Your task to perform on an android device: Play the last video I watched on Youtube Image 0: 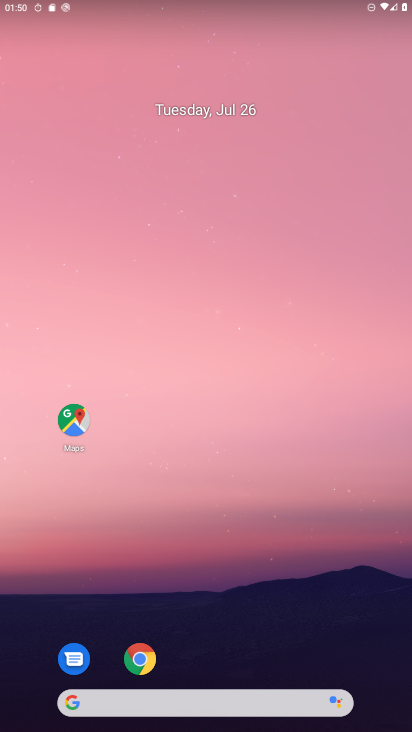
Step 0: press home button
Your task to perform on an android device: Play the last video I watched on Youtube Image 1: 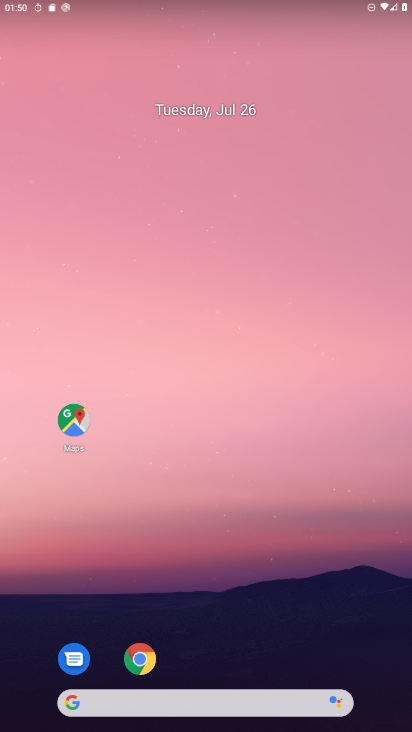
Step 1: drag from (115, 580) to (341, 17)
Your task to perform on an android device: Play the last video I watched on Youtube Image 2: 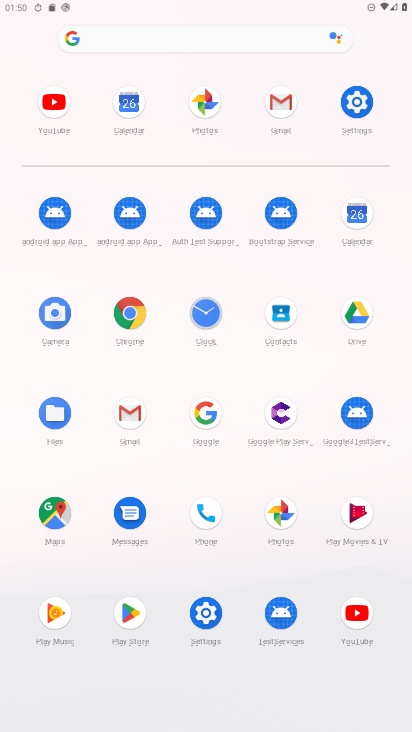
Step 2: click (356, 607)
Your task to perform on an android device: Play the last video I watched on Youtube Image 3: 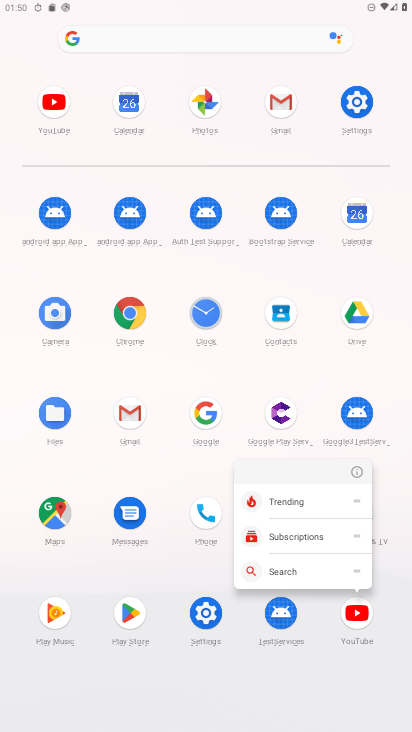
Step 3: click (48, 108)
Your task to perform on an android device: Play the last video I watched on Youtube Image 4: 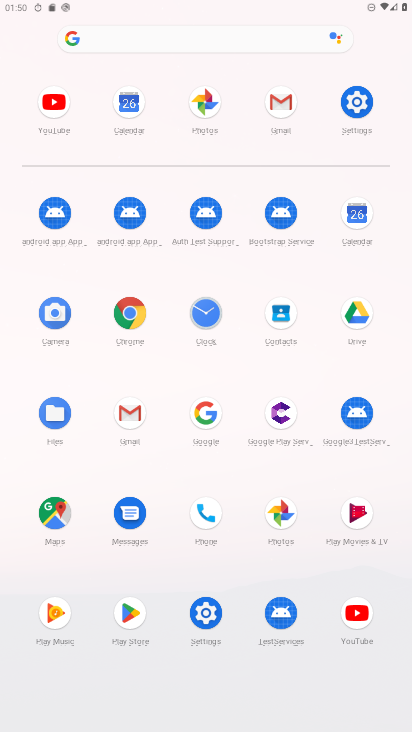
Step 4: click (356, 599)
Your task to perform on an android device: Play the last video I watched on Youtube Image 5: 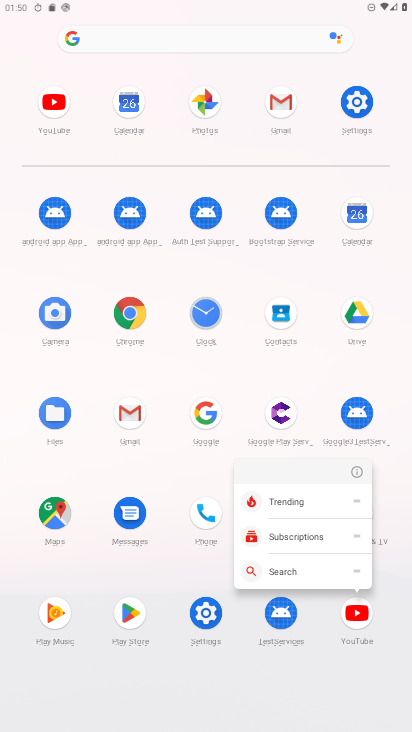
Step 5: click (342, 624)
Your task to perform on an android device: Play the last video I watched on Youtube Image 6: 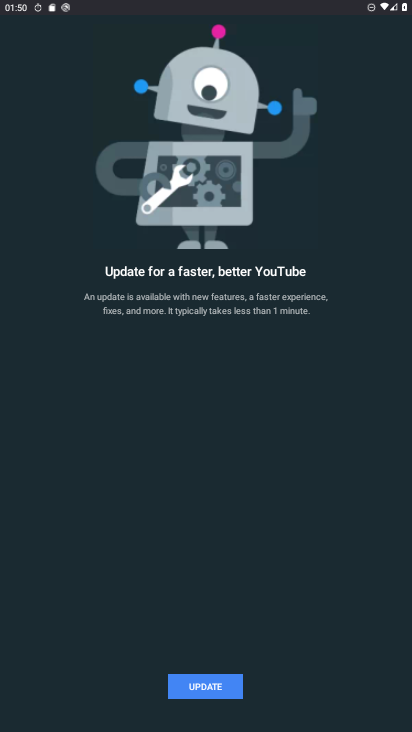
Step 6: task complete